Your task to perform on an android device: uninstall "Gmail" Image 0: 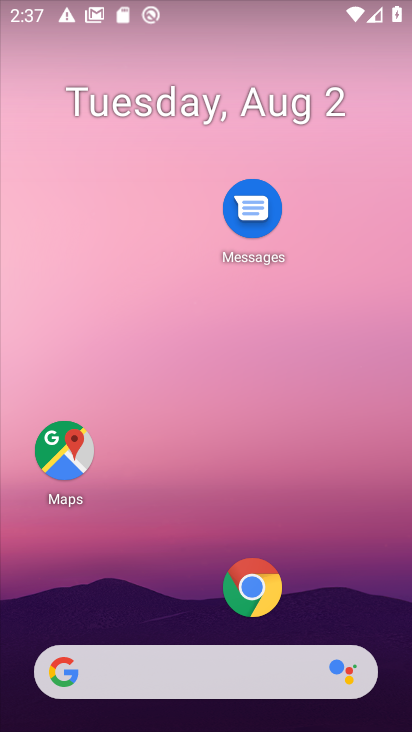
Step 0: drag from (160, 609) to (213, 250)
Your task to perform on an android device: uninstall "Gmail" Image 1: 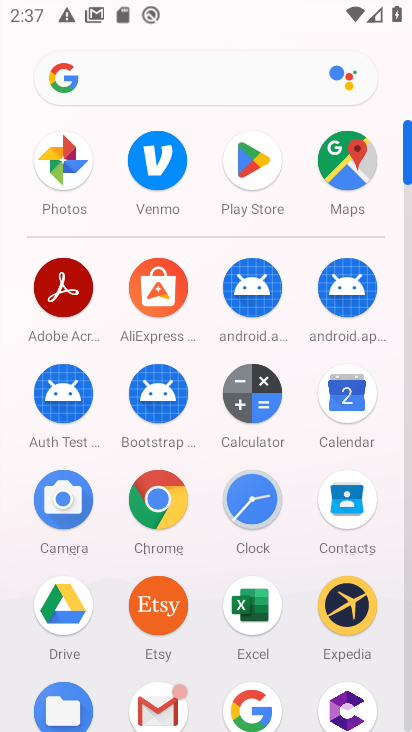
Step 1: click (257, 183)
Your task to perform on an android device: uninstall "Gmail" Image 2: 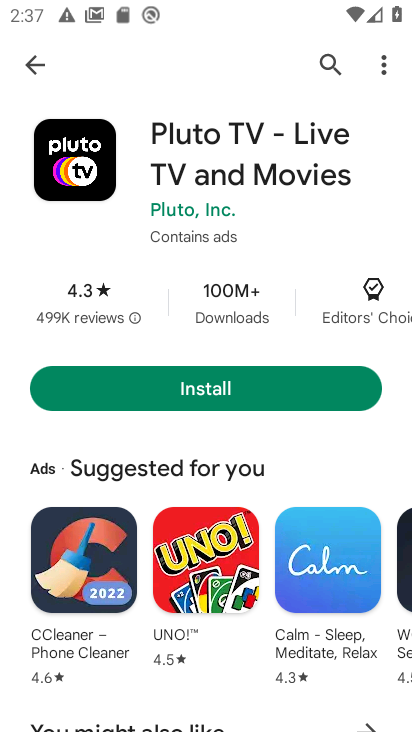
Step 2: click (325, 67)
Your task to perform on an android device: uninstall "Gmail" Image 3: 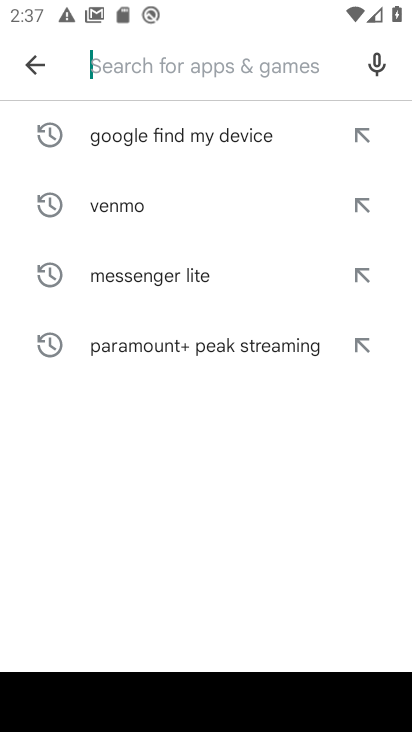
Step 3: type "Gmail"
Your task to perform on an android device: uninstall "Gmail" Image 4: 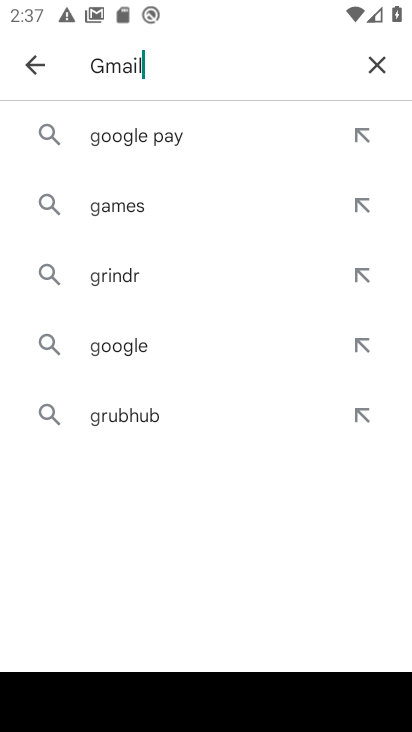
Step 4: type ""
Your task to perform on an android device: uninstall "Gmail" Image 5: 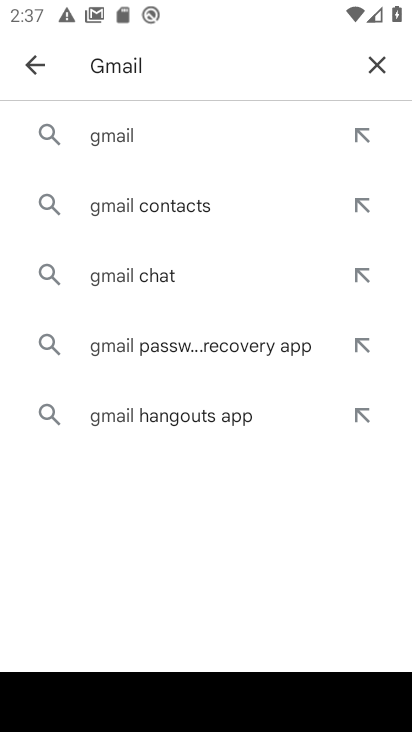
Step 5: click (159, 128)
Your task to perform on an android device: uninstall "Gmail" Image 6: 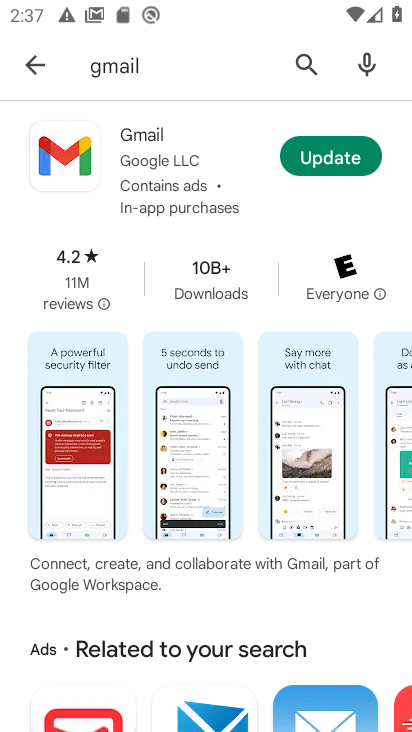
Step 6: click (173, 162)
Your task to perform on an android device: uninstall "Gmail" Image 7: 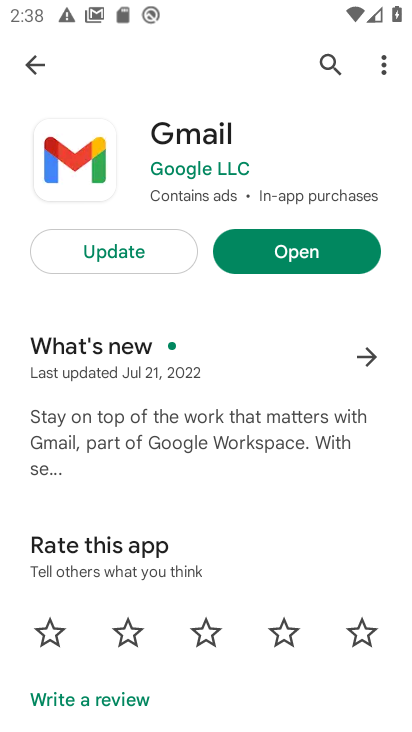
Step 7: click (93, 243)
Your task to perform on an android device: uninstall "Gmail" Image 8: 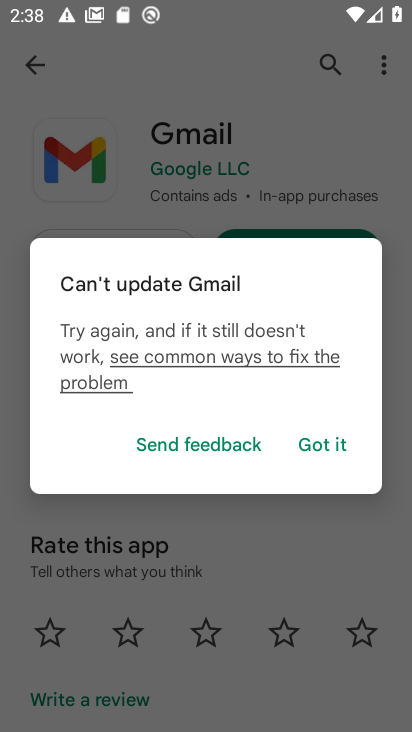
Step 8: click (308, 443)
Your task to perform on an android device: uninstall "Gmail" Image 9: 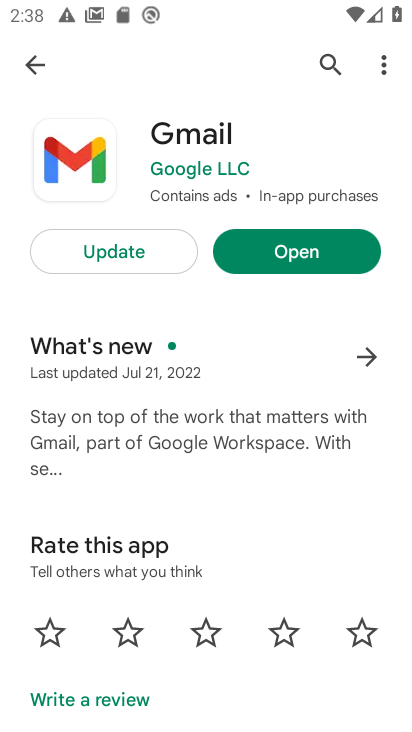
Step 9: click (125, 249)
Your task to perform on an android device: uninstall "Gmail" Image 10: 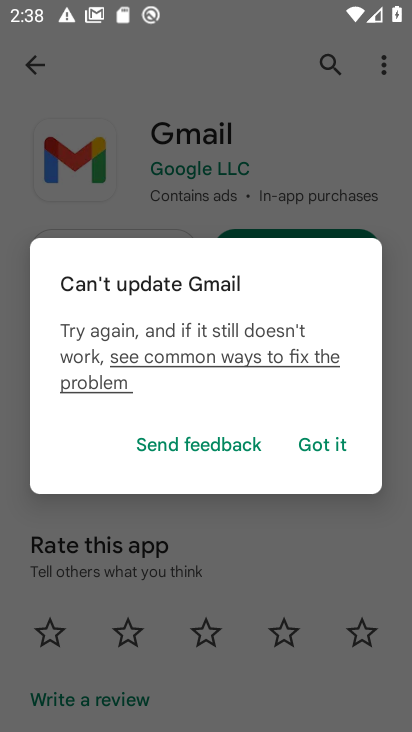
Step 10: click (303, 449)
Your task to perform on an android device: uninstall "Gmail" Image 11: 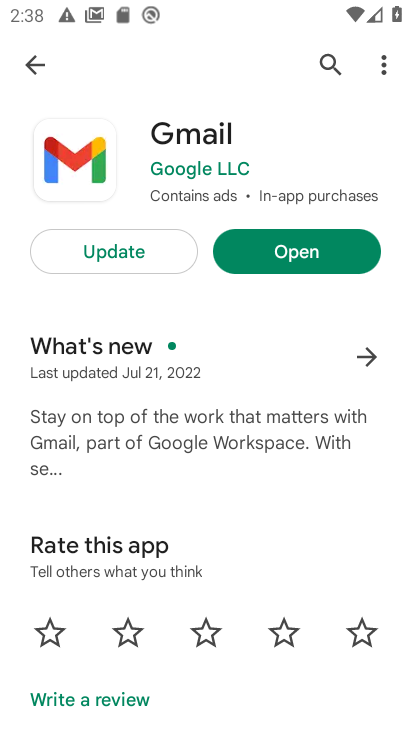
Step 11: task complete